Your task to perform on an android device: Open accessibility settings Image 0: 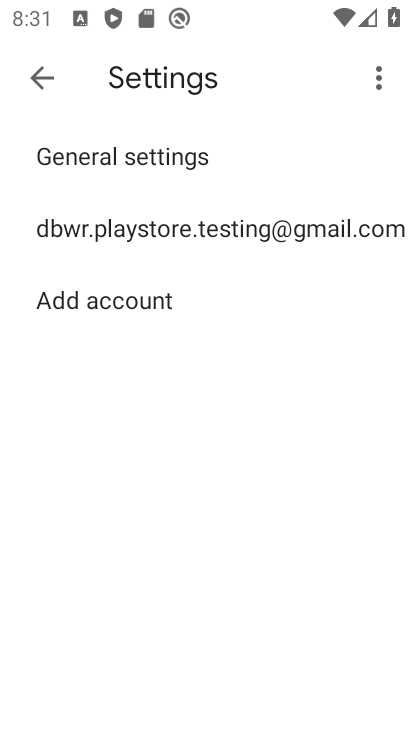
Step 0: press home button
Your task to perform on an android device: Open accessibility settings Image 1: 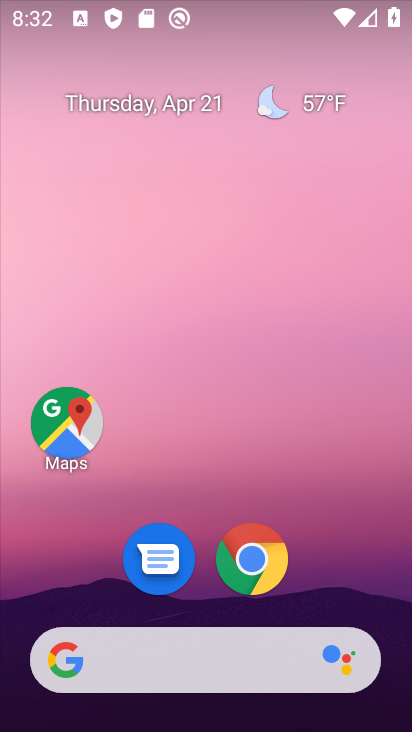
Step 1: drag from (261, 719) to (239, 9)
Your task to perform on an android device: Open accessibility settings Image 2: 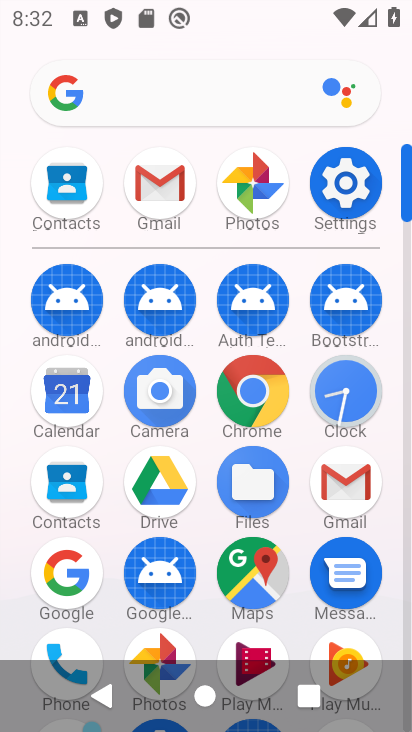
Step 2: click (333, 183)
Your task to perform on an android device: Open accessibility settings Image 3: 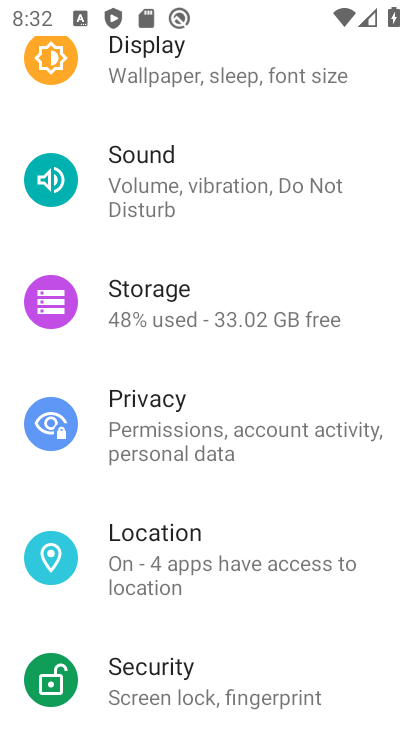
Step 3: drag from (317, 663) to (257, 25)
Your task to perform on an android device: Open accessibility settings Image 4: 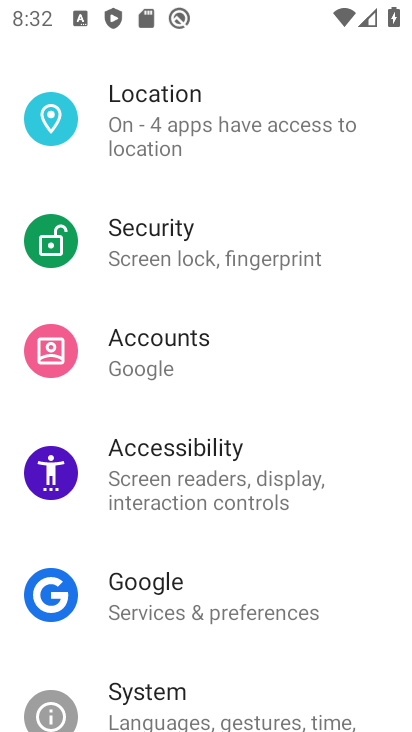
Step 4: click (255, 484)
Your task to perform on an android device: Open accessibility settings Image 5: 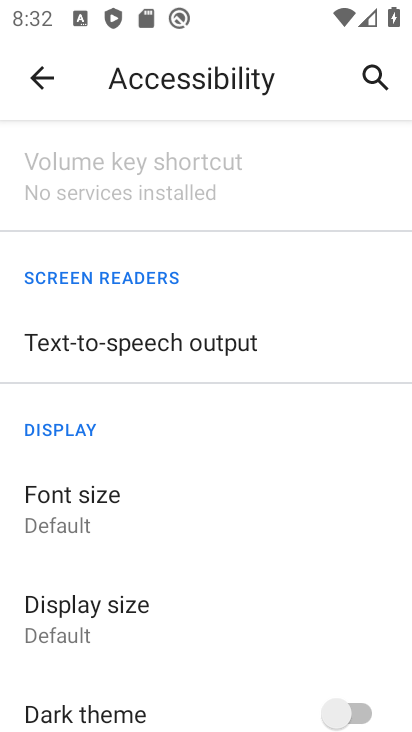
Step 5: task complete